Your task to perform on an android device: turn on translation in the chrome app Image 0: 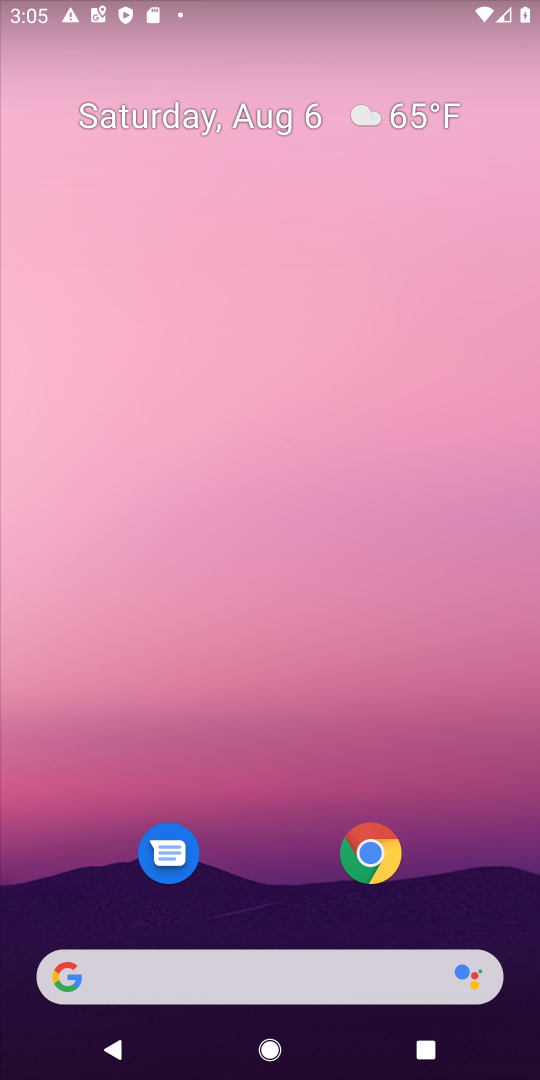
Step 0: click (359, 863)
Your task to perform on an android device: turn on translation in the chrome app Image 1: 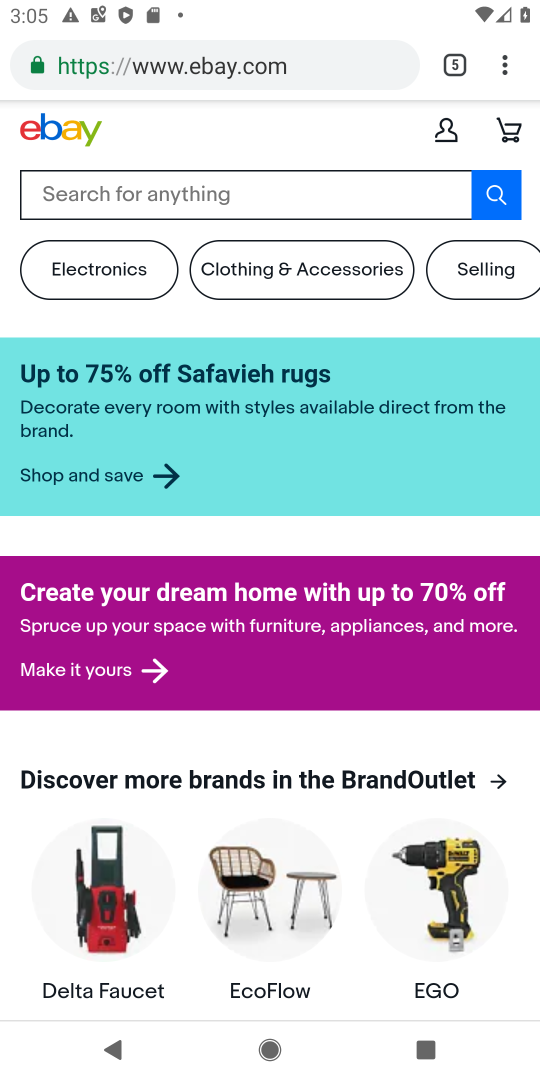
Step 1: drag from (491, 64) to (270, 801)
Your task to perform on an android device: turn on translation in the chrome app Image 2: 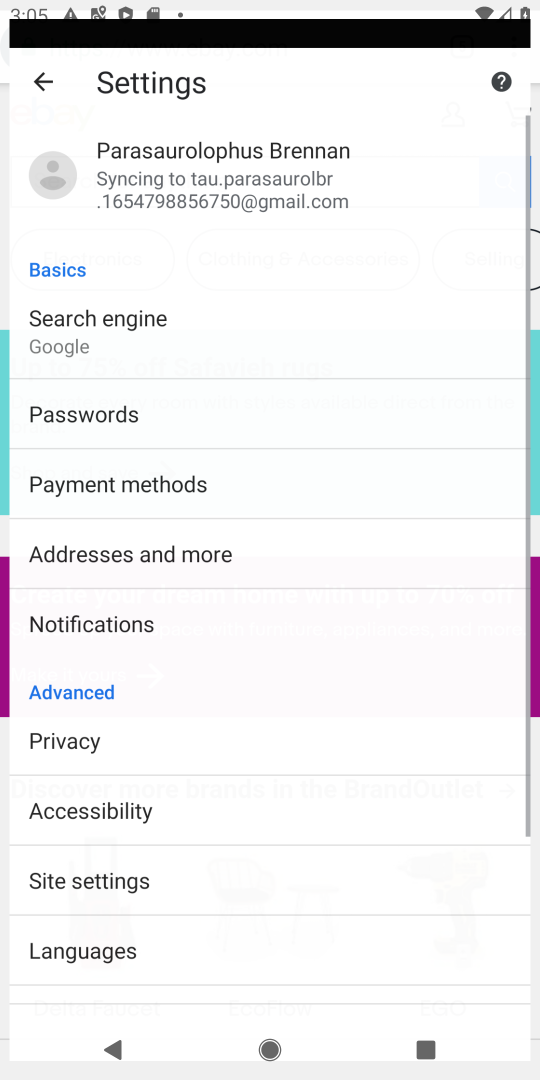
Step 2: drag from (268, 795) to (431, 69)
Your task to perform on an android device: turn on translation in the chrome app Image 3: 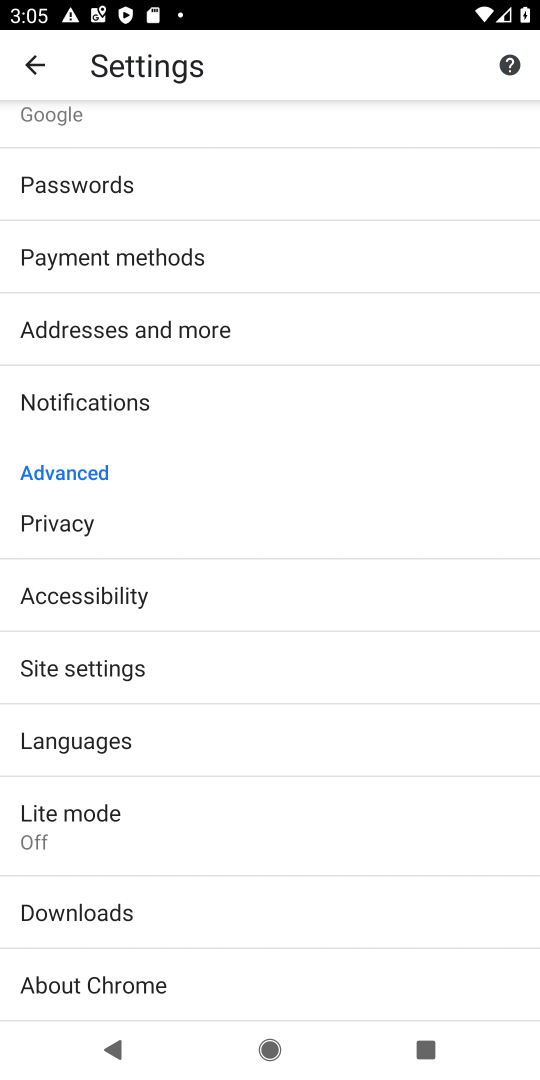
Step 3: click (70, 742)
Your task to perform on an android device: turn on translation in the chrome app Image 4: 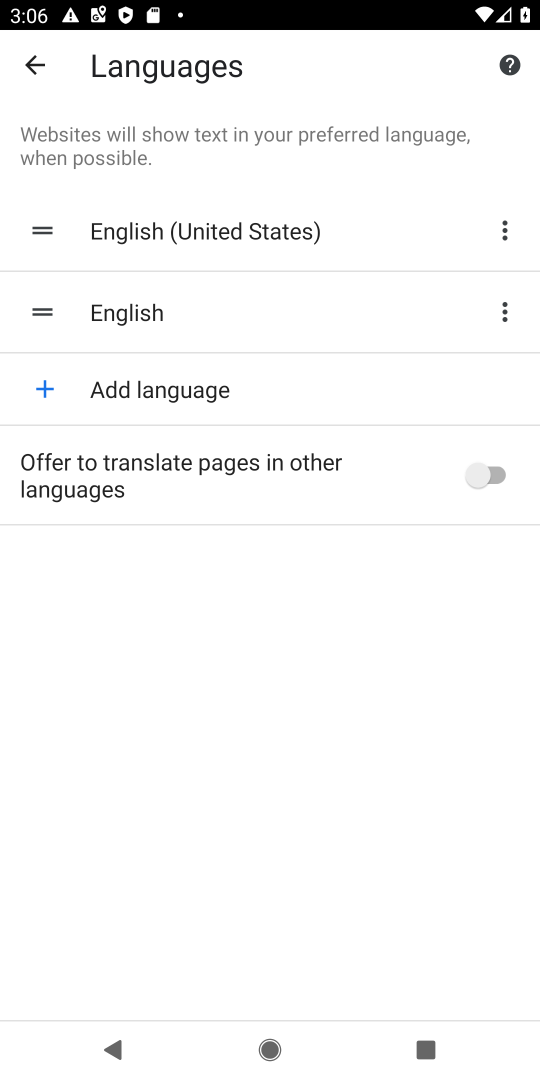
Step 4: click (488, 479)
Your task to perform on an android device: turn on translation in the chrome app Image 5: 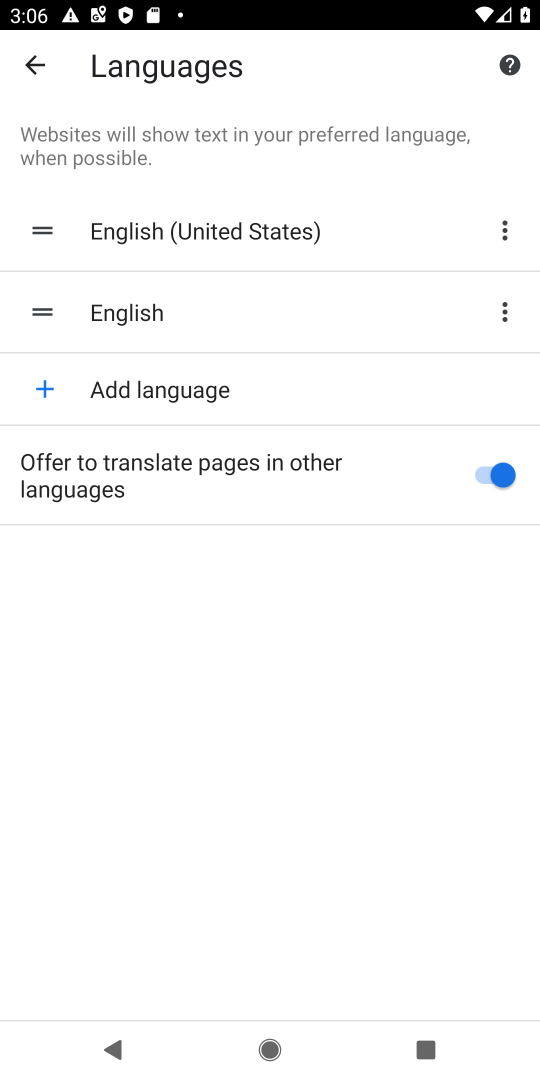
Step 5: task complete